Your task to perform on an android device: turn off wifi Image 0: 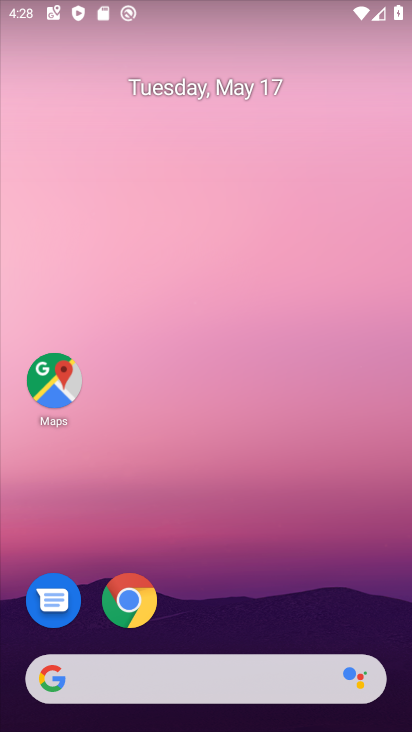
Step 0: drag from (388, 620) to (332, 38)
Your task to perform on an android device: turn off wifi Image 1: 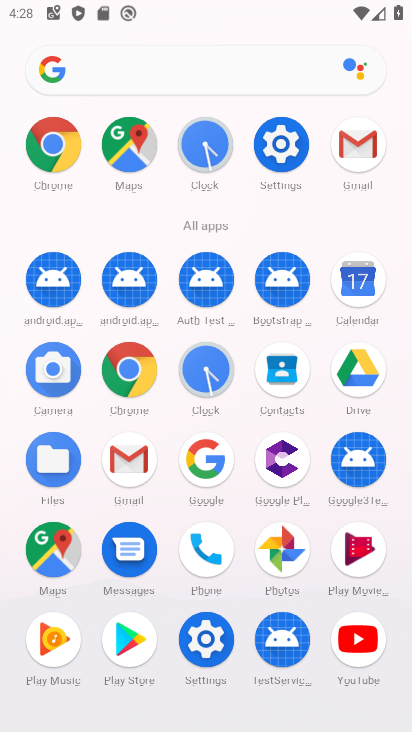
Step 1: click (208, 634)
Your task to perform on an android device: turn off wifi Image 2: 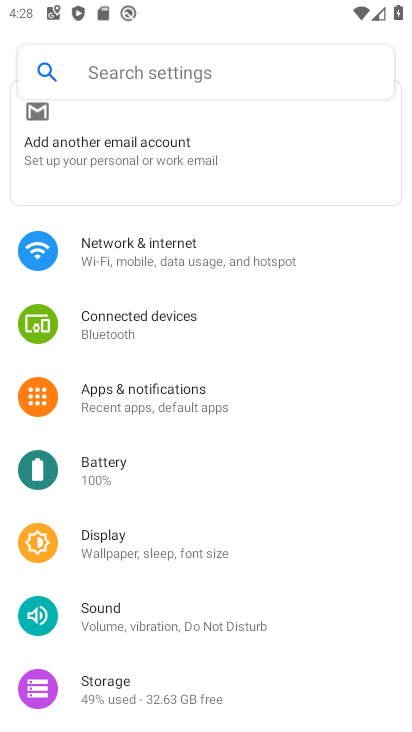
Step 2: click (144, 243)
Your task to perform on an android device: turn off wifi Image 3: 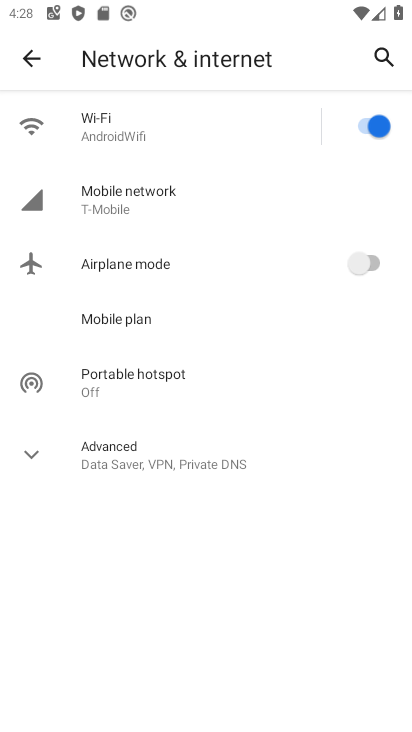
Step 3: click (363, 122)
Your task to perform on an android device: turn off wifi Image 4: 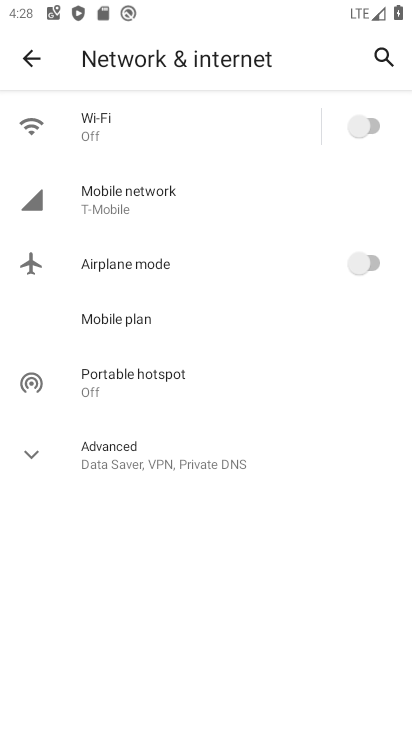
Step 4: task complete